Your task to perform on an android device: Show the shopping cart on newegg.com. Add "lenovo thinkpad" to the cart on newegg.com Image 0: 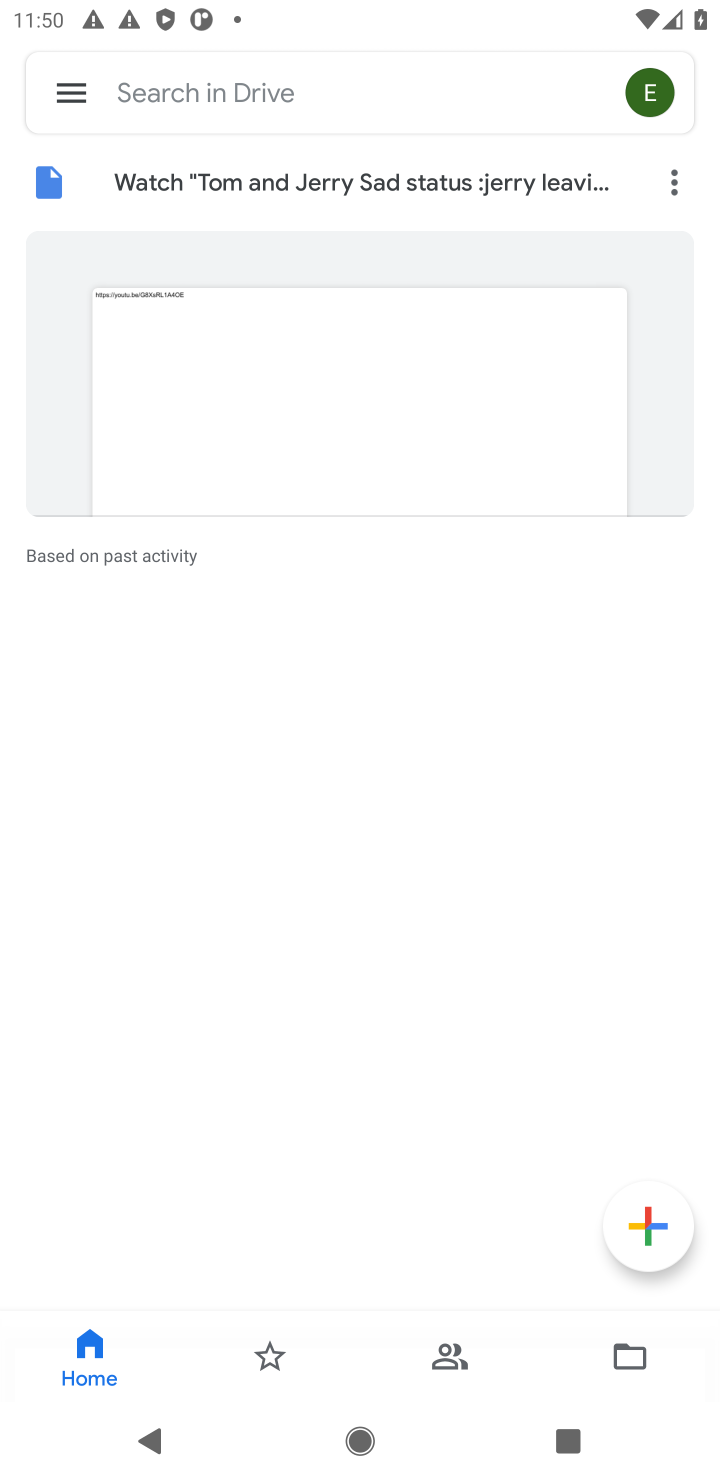
Step 0: press home button
Your task to perform on an android device: Show the shopping cart on newegg.com. Add "lenovo thinkpad" to the cart on newegg.com Image 1: 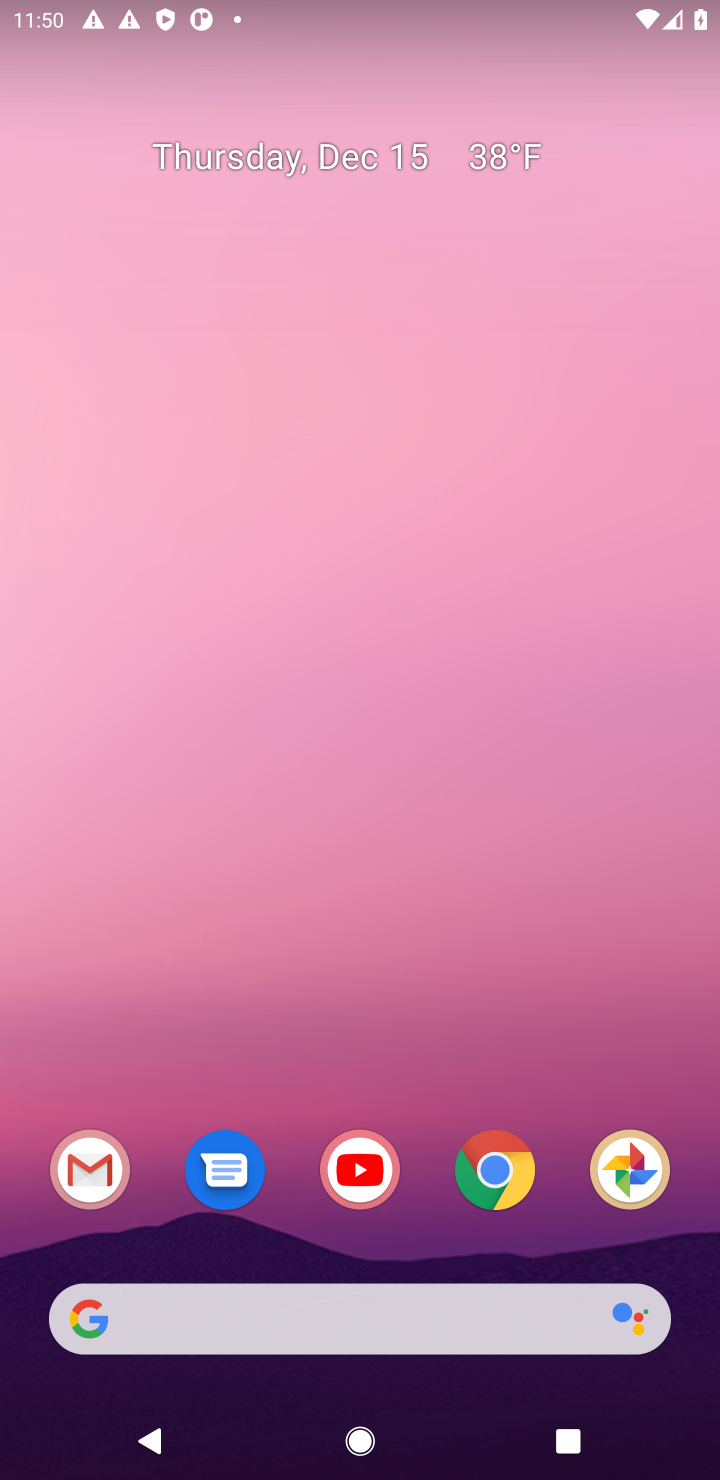
Step 1: click (512, 1181)
Your task to perform on an android device: Show the shopping cart on newegg.com. Add "lenovo thinkpad" to the cart on newegg.com Image 2: 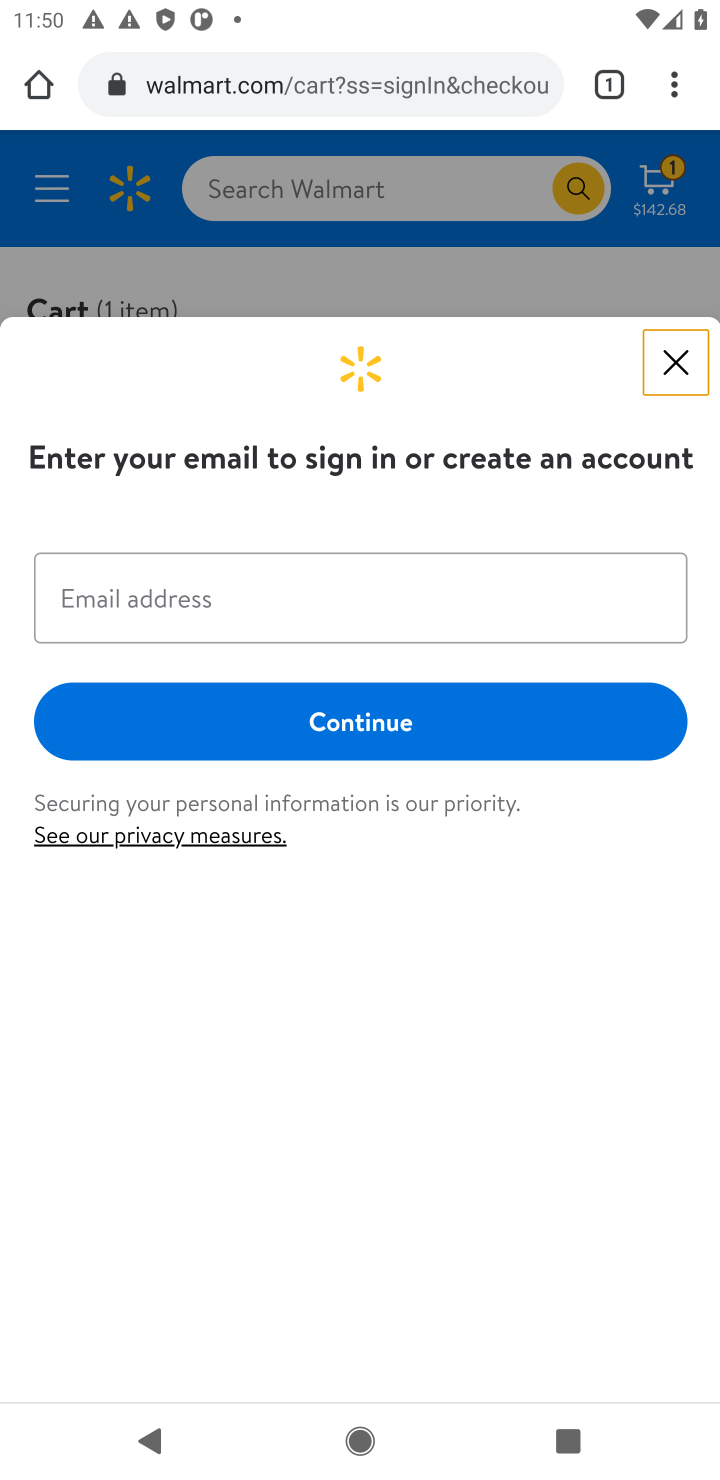
Step 2: click (239, 98)
Your task to perform on an android device: Show the shopping cart on newegg.com. Add "lenovo thinkpad" to the cart on newegg.com Image 3: 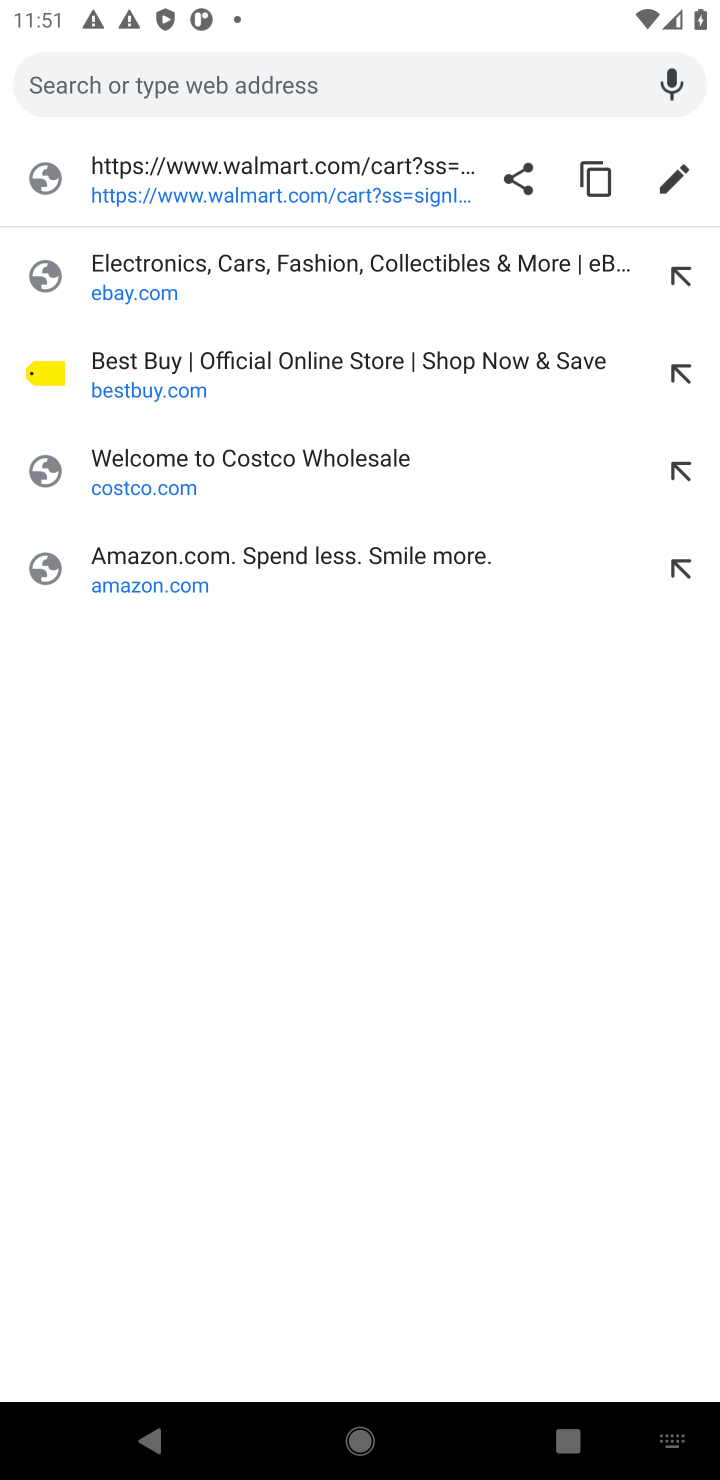
Step 3: type "newegg.com"
Your task to perform on an android device: Show the shopping cart on newegg.com. Add "lenovo thinkpad" to the cart on newegg.com Image 4: 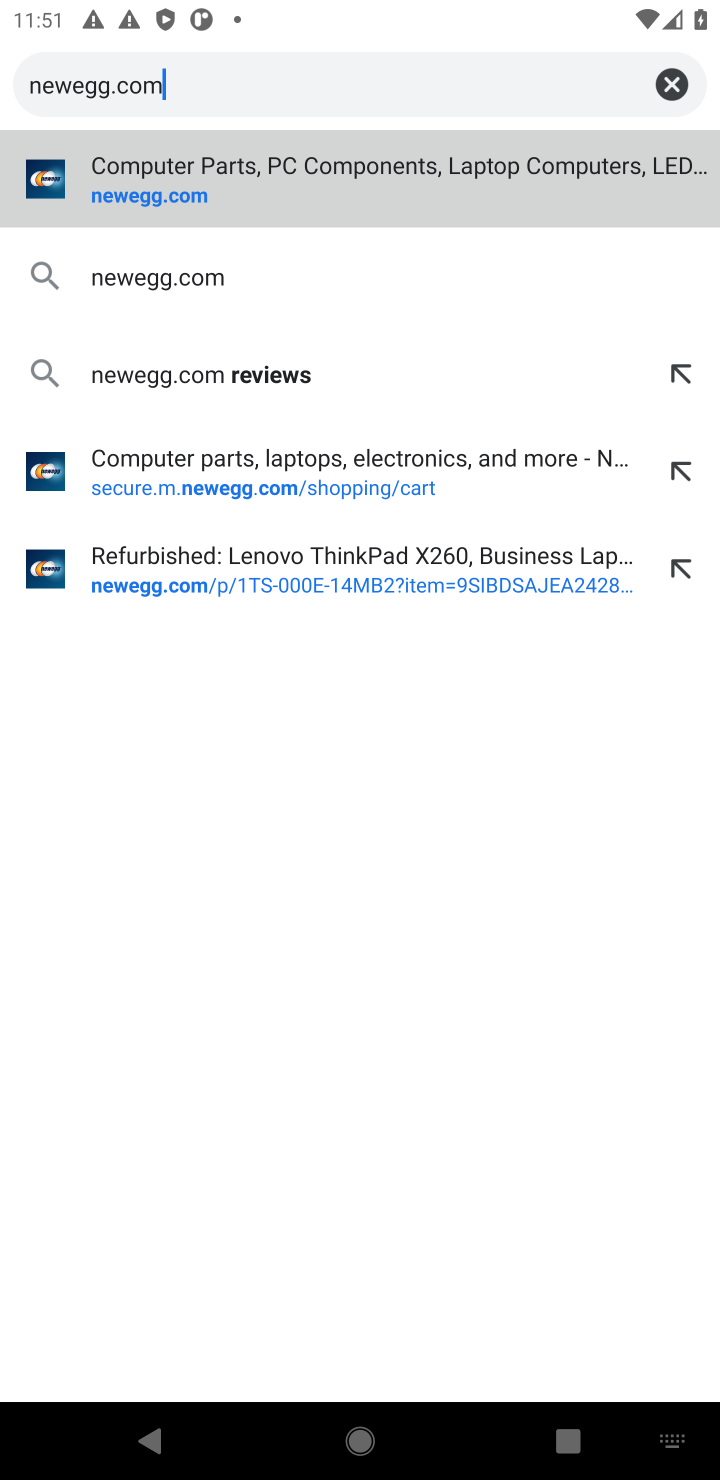
Step 4: click (125, 181)
Your task to perform on an android device: Show the shopping cart on newegg.com. Add "lenovo thinkpad" to the cart on newegg.com Image 5: 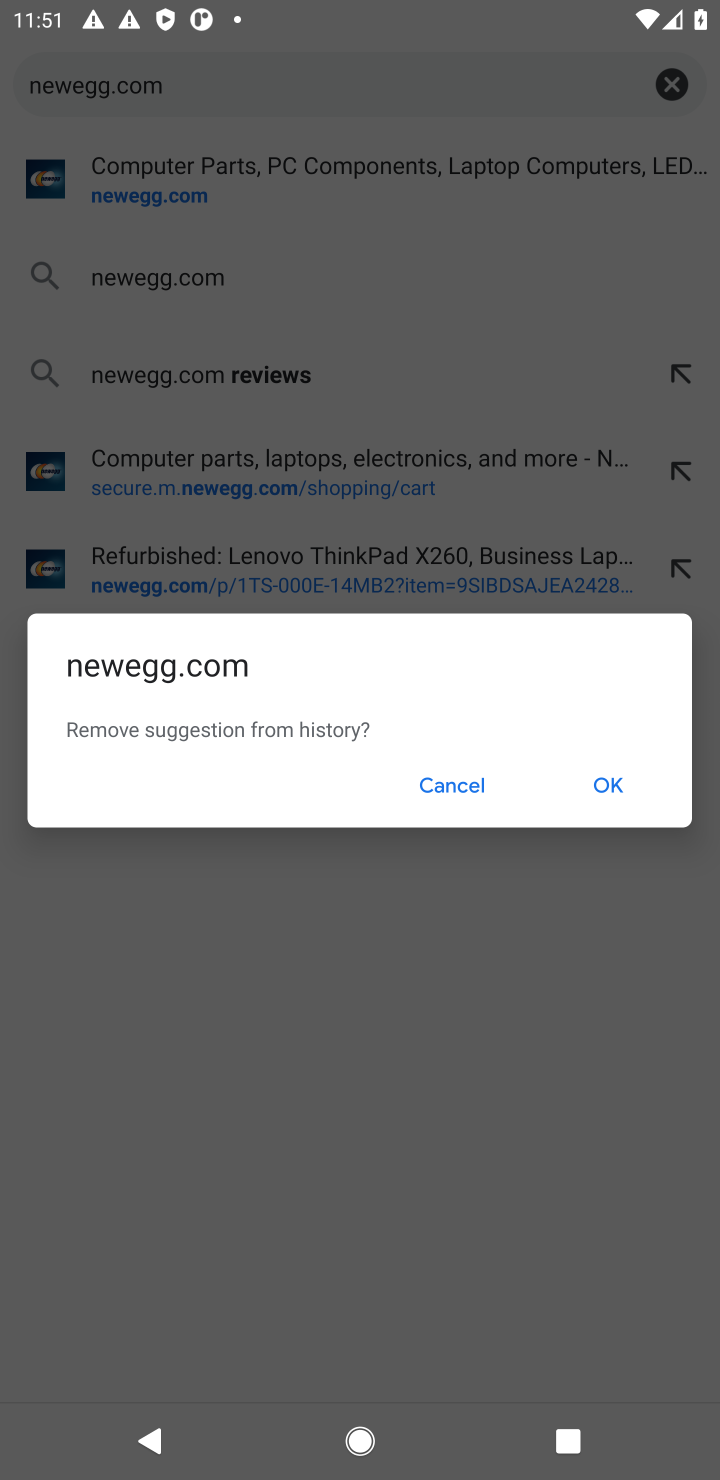
Step 5: click (469, 791)
Your task to perform on an android device: Show the shopping cart on newegg.com. Add "lenovo thinkpad" to the cart on newegg.com Image 6: 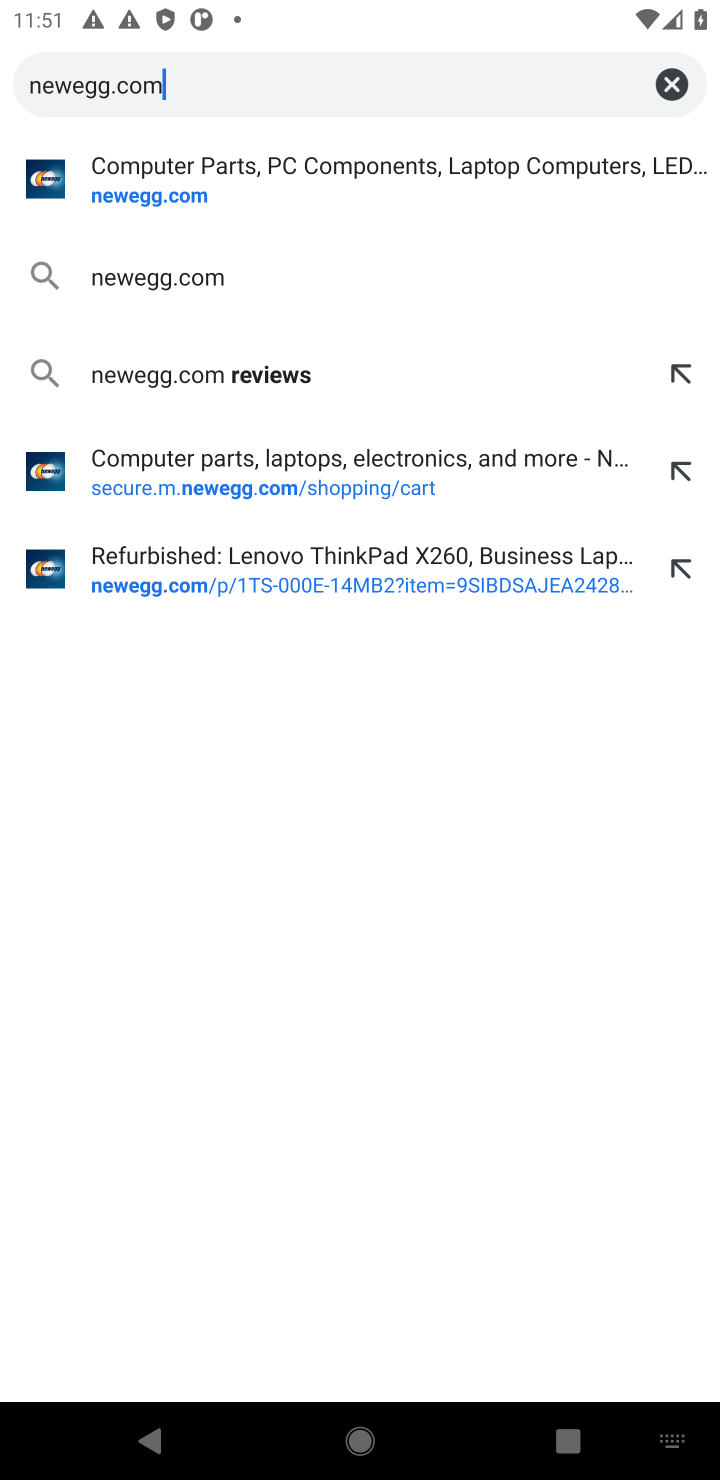
Step 6: click (134, 200)
Your task to perform on an android device: Show the shopping cart on newegg.com. Add "lenovo thinkpad" to the cart on newegg.com Image 7: 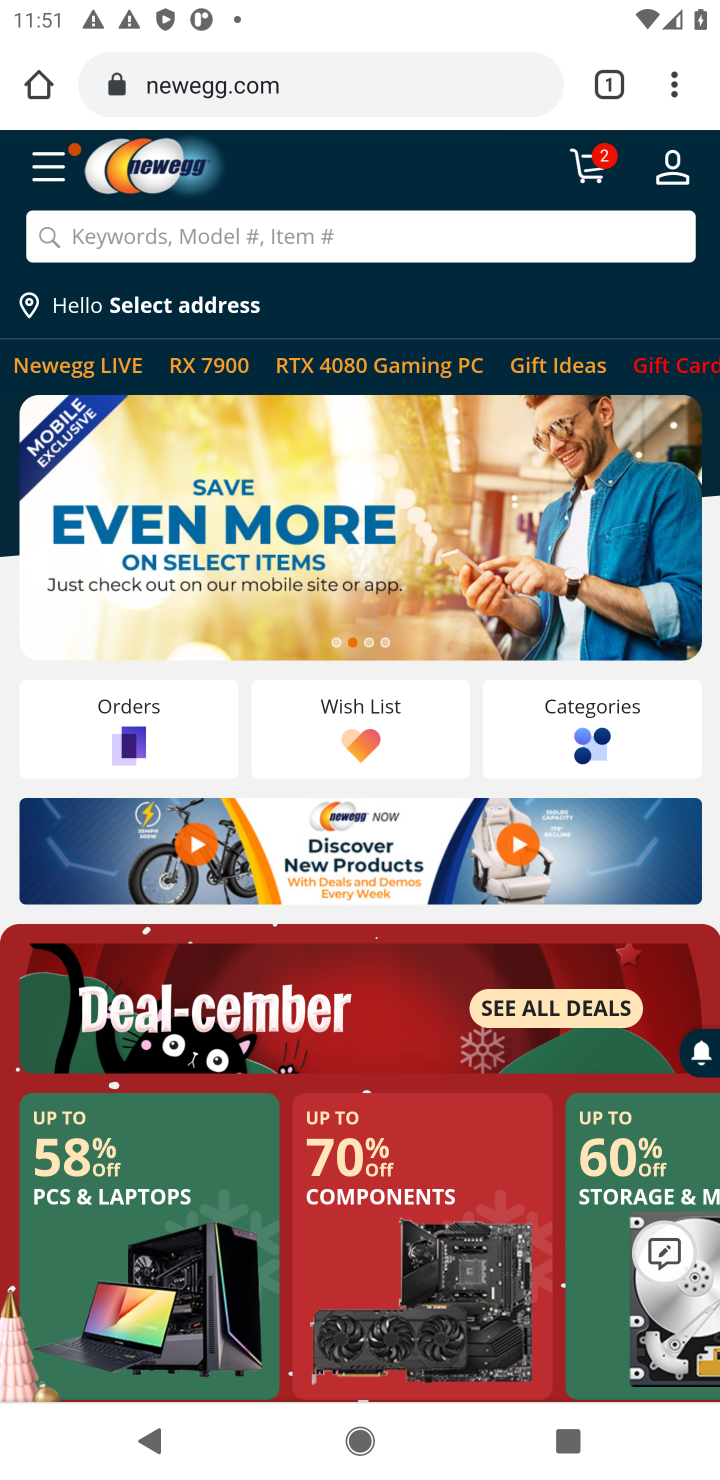
Step 7: click (593, 162)
Your task to perform on an android device: Show the shopping cart on newegg.com. Add "lenovo thinkpad" to the cart on newegg.com Image 8: 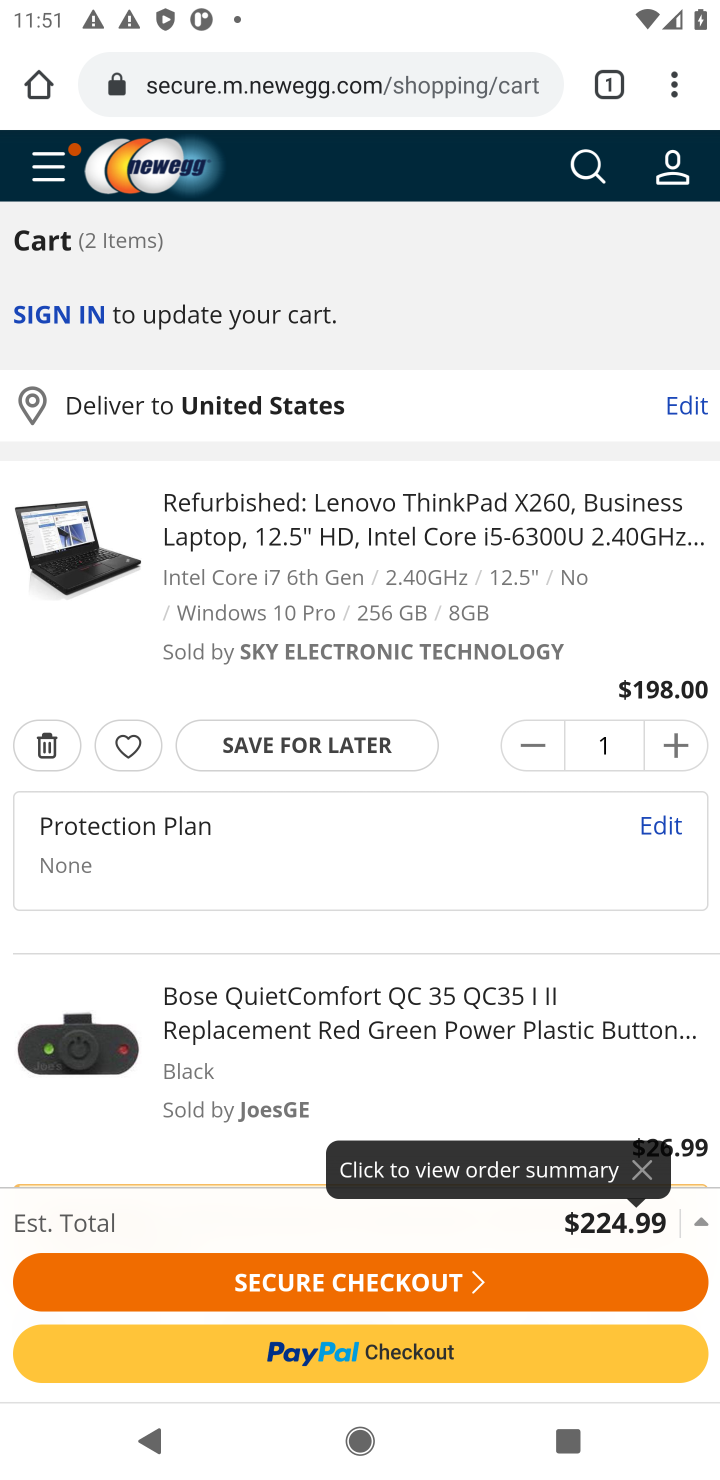
Step 8: click (590, 168)
Your task to perform on an android device: Show the shopping cart on newegg.com. Add "lenovo thinkpad" to the cart on newegg.com Image 9: 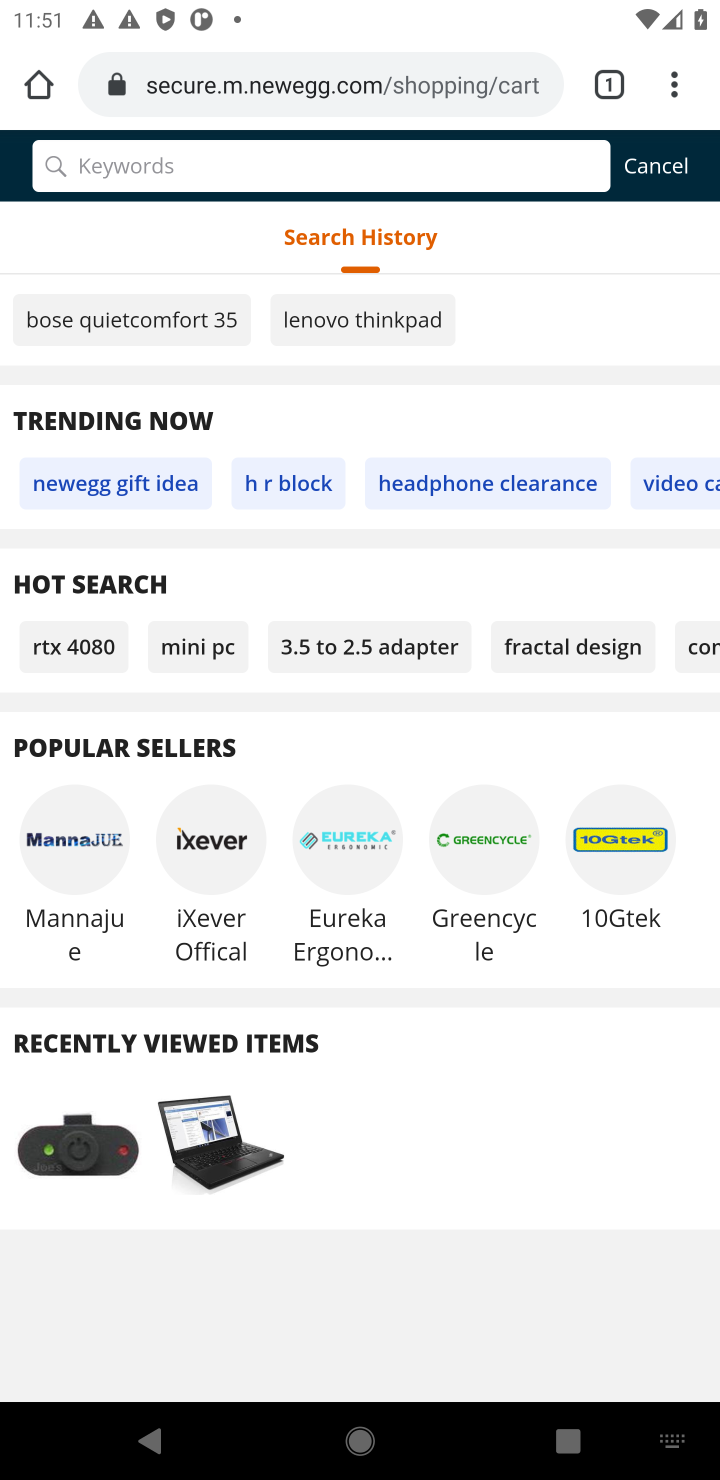
Step 9: type "lenovo thinkpad"
Your task to perform on an android device: Show the shopping cart on newegg.com. Add "lenovo thinkpad" to the cart on newegg.com Image 10: 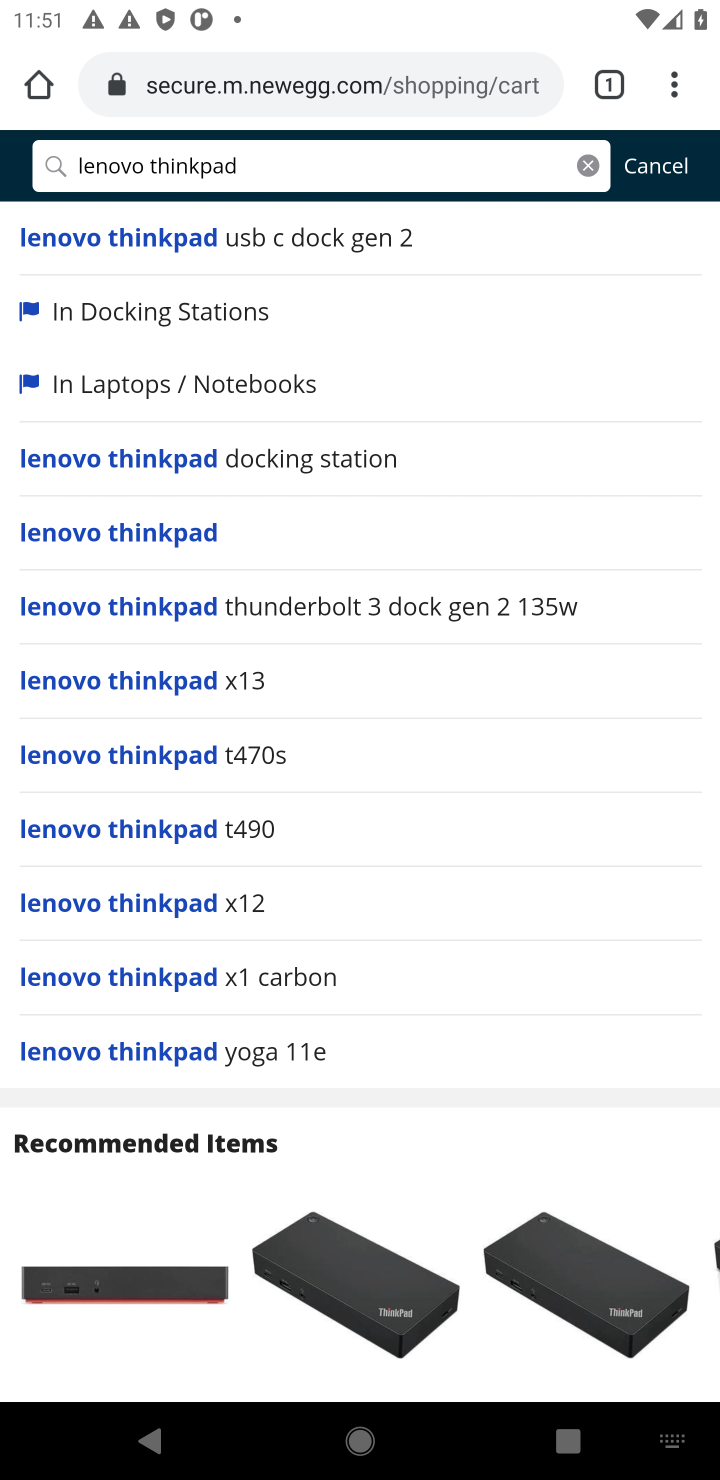
Step 10: click (121, 531)
Your task to perform on an android device: Show the shopping cart on newegg.com. Add "lenovo thinkpad" to the cart on newegg.com Image 11: 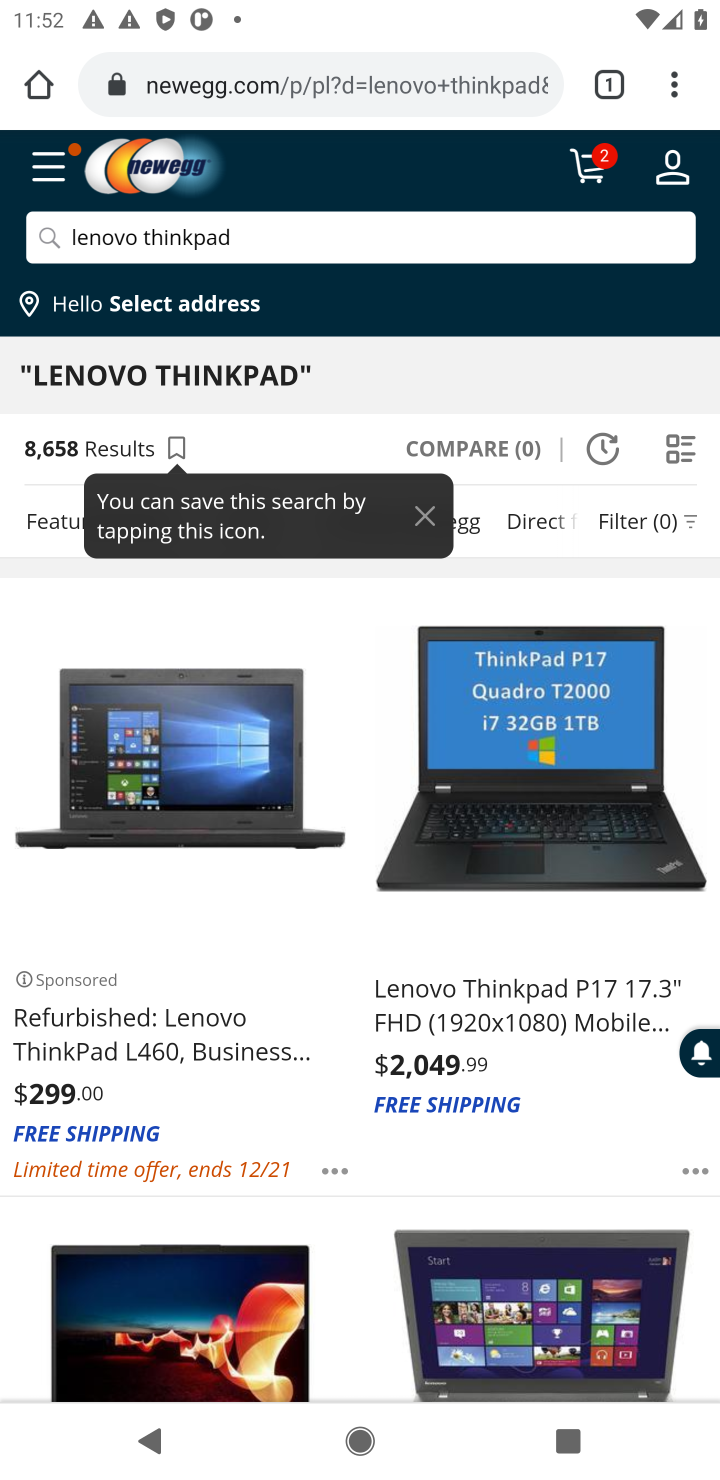
Step 11: click (90, 1051)
Your task to perform on an android device: Show the shopping cart on newegg.com. Add "lenovo thinkpad" to the cart on newegg.com Image 12: 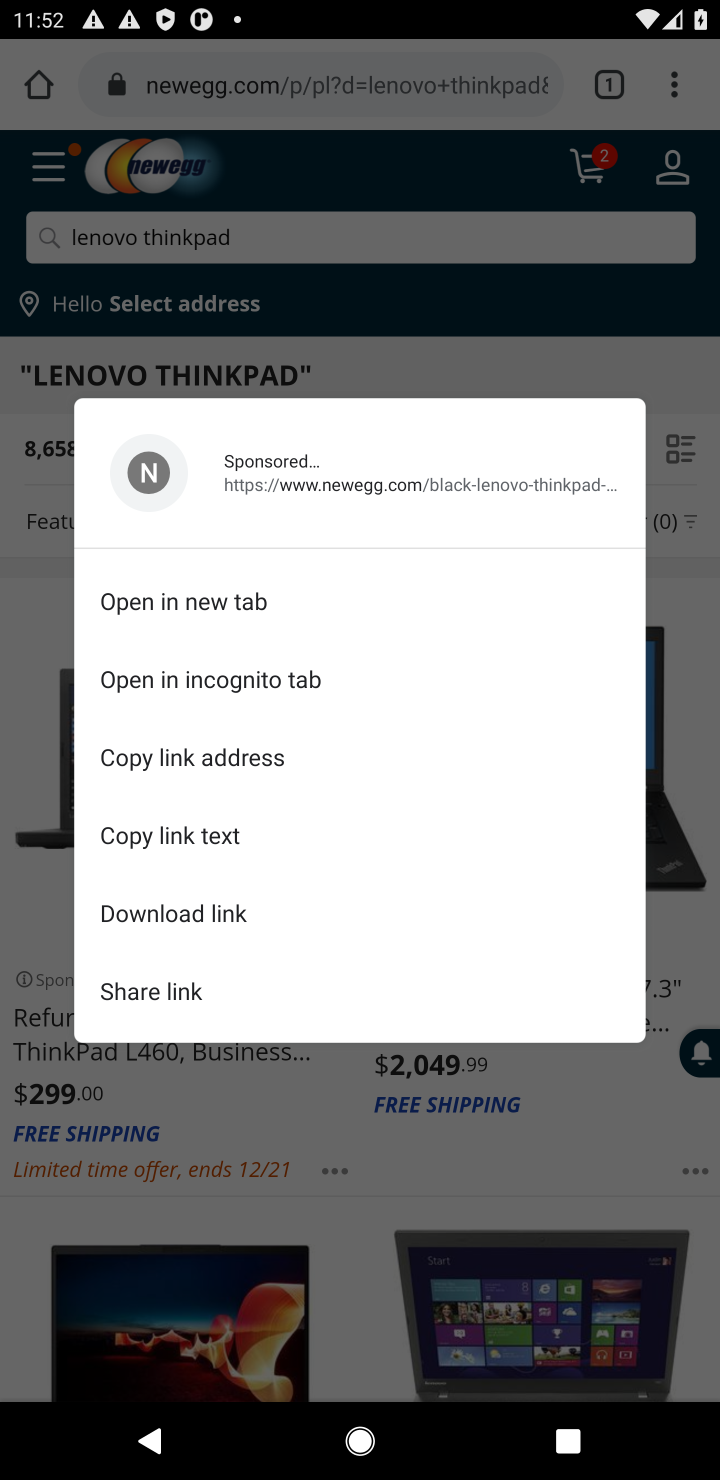
Step 12: click (39, 1047)
Your task to perform on an android device: Show the shopping cart on newegg.com. Add "lenovo thinkpad" to the cart on newegg.com Image 13: 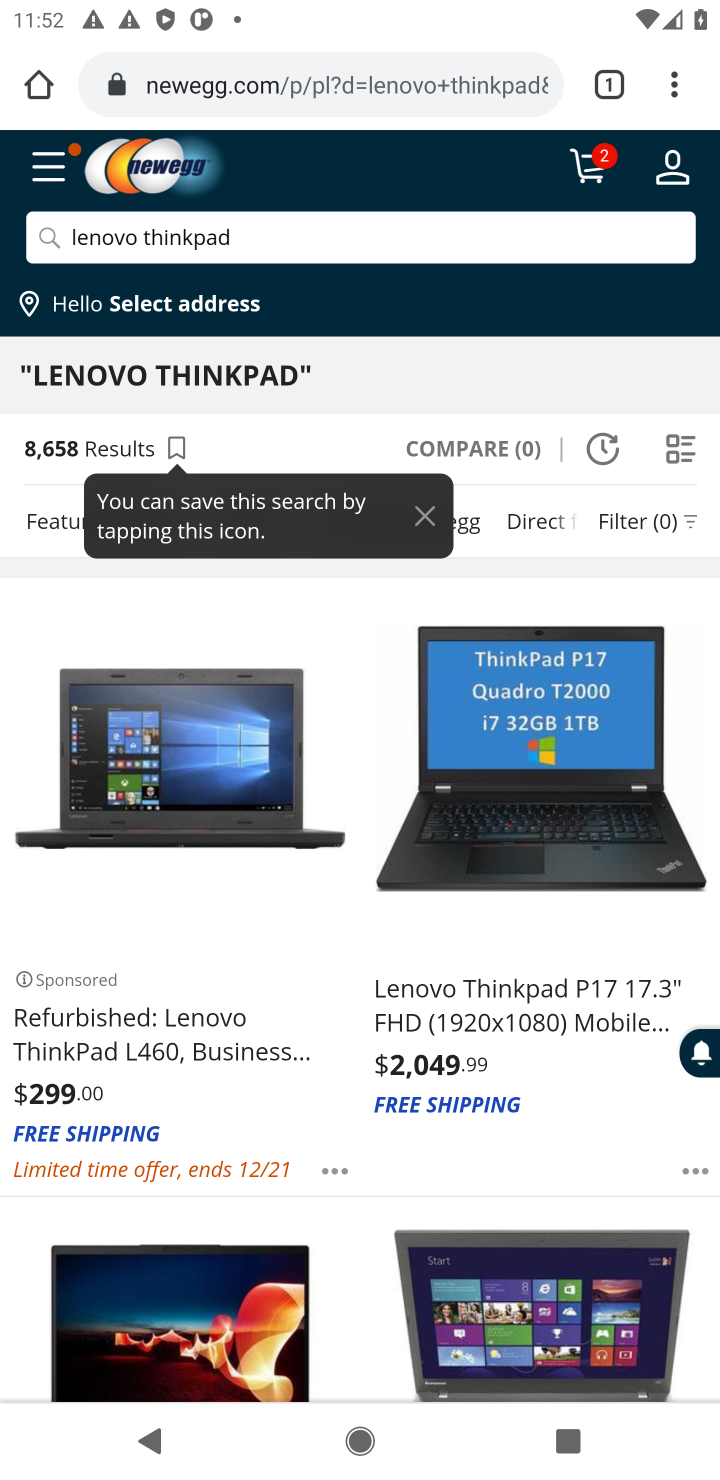
Step 13: click (80, 1025)
Your task to perform on an android device: Show the shopping cart on newegg.com. Add "lenovo thinkpad" to the cart on newegg.com Image 14: 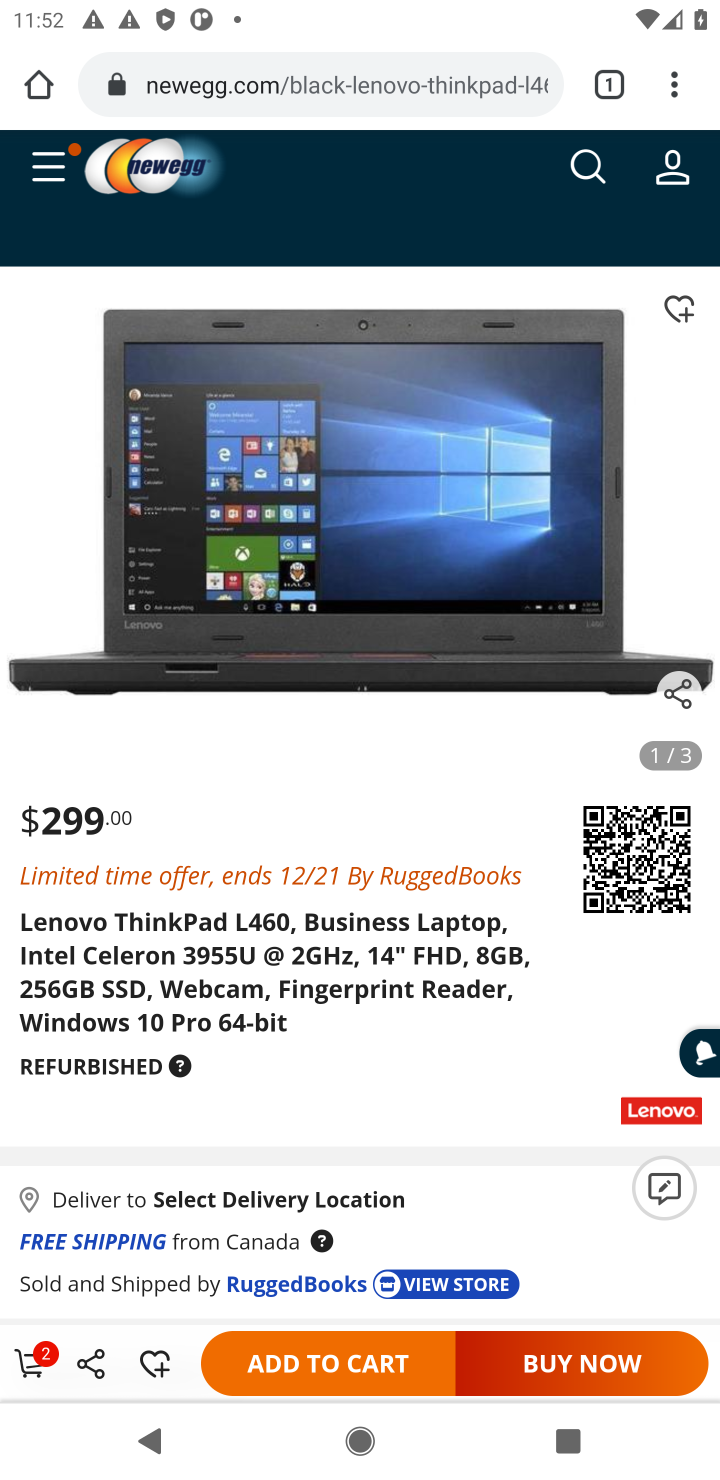
Step 14: click (289, 1368)
Your task to perform on an android device: Show the shopping cart on newegg.com. Add "lenovo thinkpad" to the cart on newegg.com Image 15: 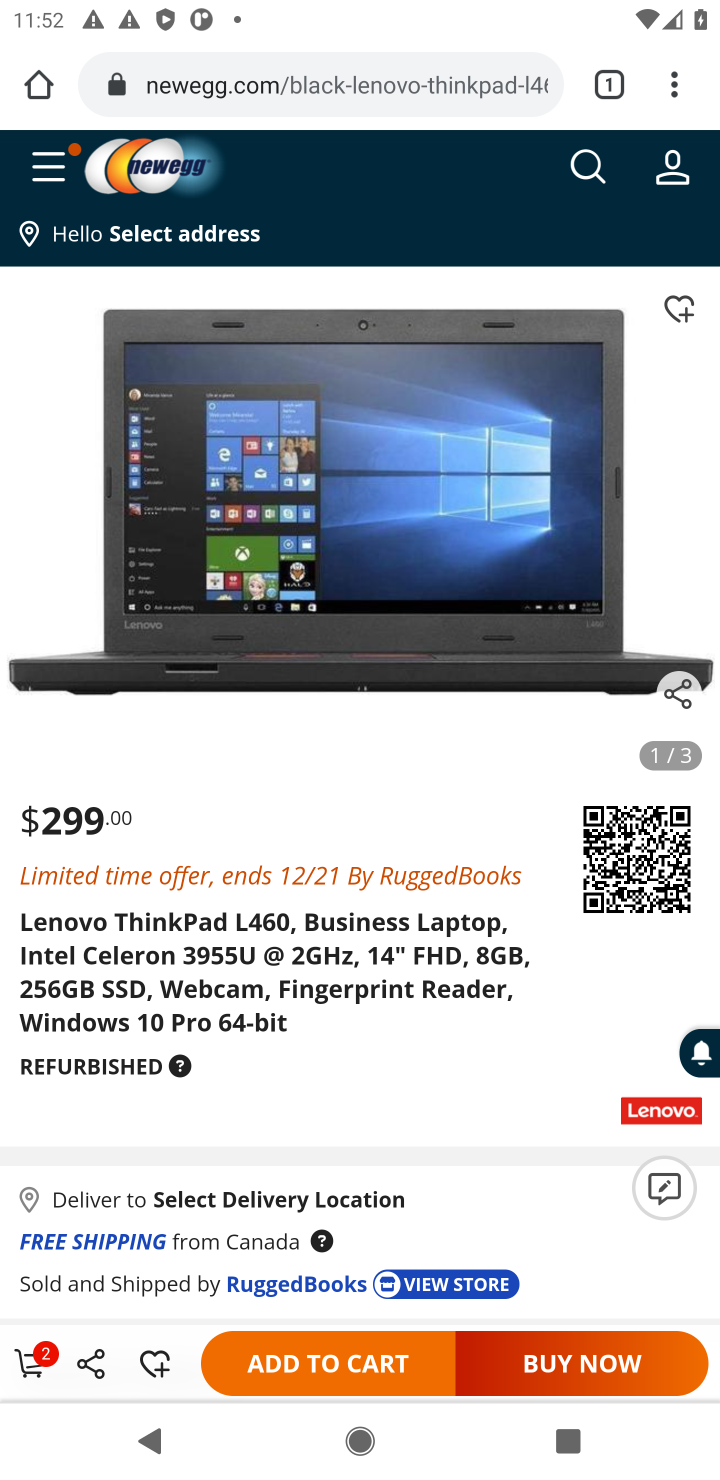
Step 15: click (334, 1366)
Your task to perform on an android device: Show the shopping cart on newegg.com. Add "lenovo thinkpad" to the cart on newegg.com Image 16: 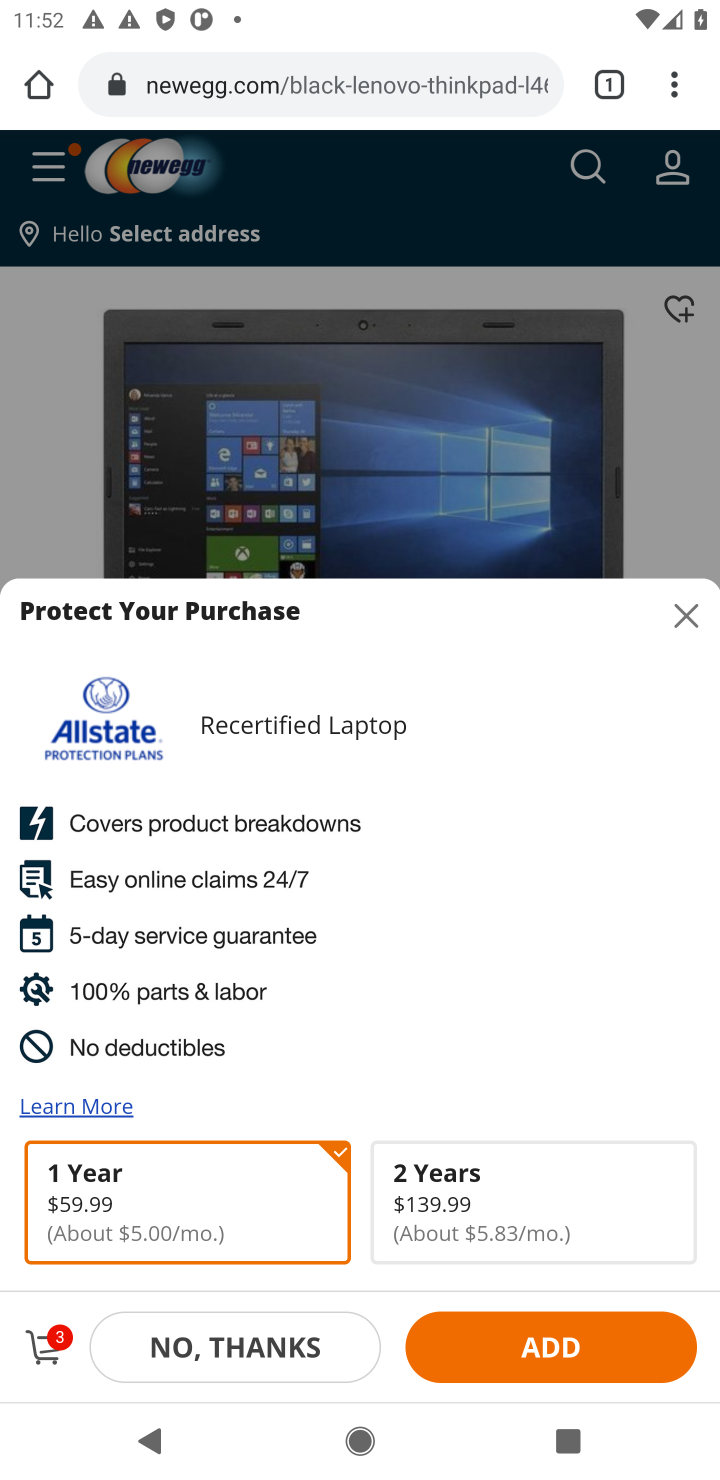
Step 16: task complete